Your task to perform on an android device: Open calendar and show me the second week of next month Image 0: 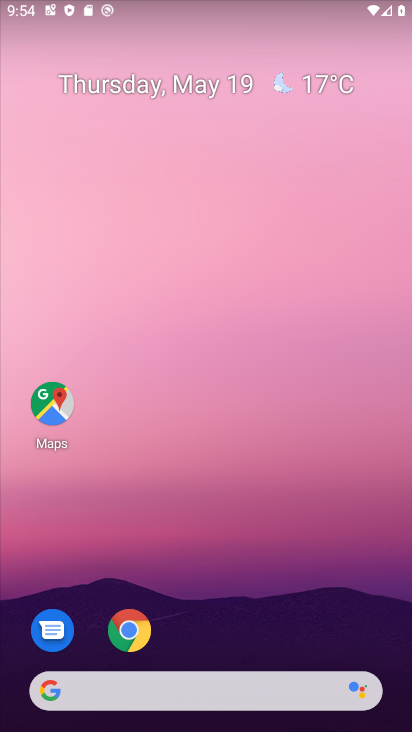
Step 0: drag from (249, 585) to (154, 38)
Your task to perform on an android device: Open calendar and show me the second week of next month Image 1: 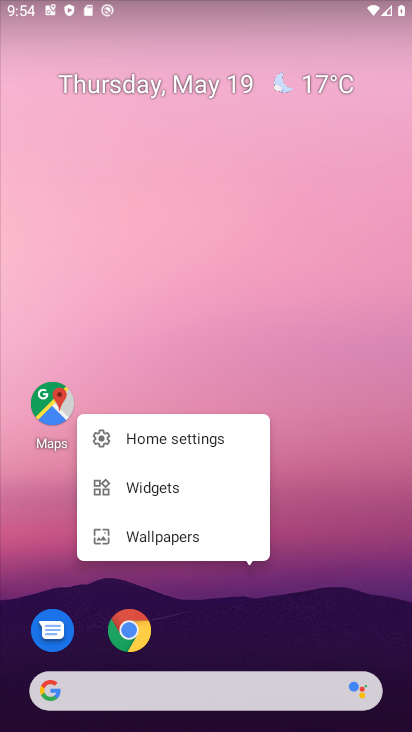
Step 1: click (336, 461)
Your task to perform on an android device: Open calendar and show me the second week of next month Image 2: 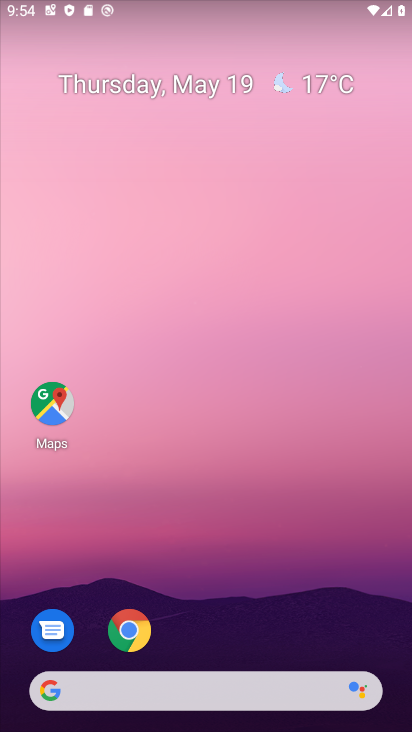
Step 2: drag from (169, 539) to (246, 55)
Your task to perform on an android device: Open calendar and show me the second week of next month Image 3: 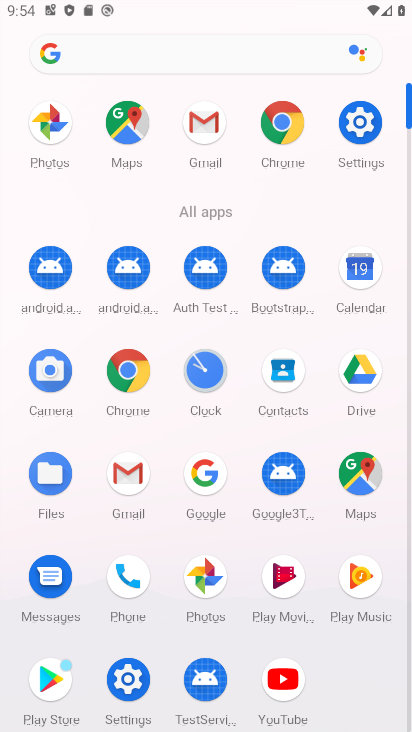
Step 3: click (365, 262)
Your task to perform on an android device: Open calendar and show me the second week of next month Image 4: 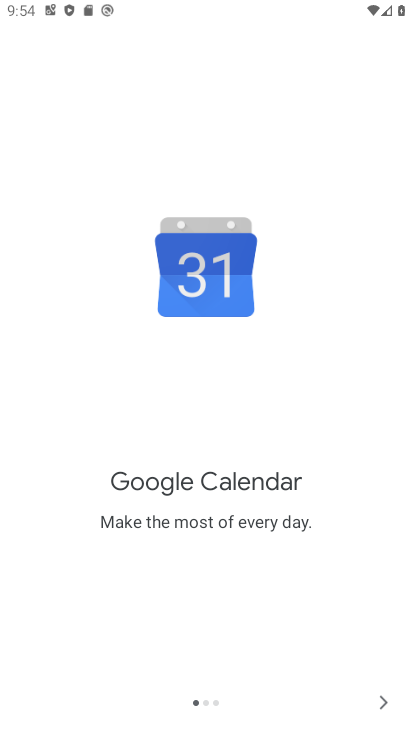
Step 4: click (378, 703)
Your task to perform on an android device: Open calendar and show me the second week of next month Image 5: 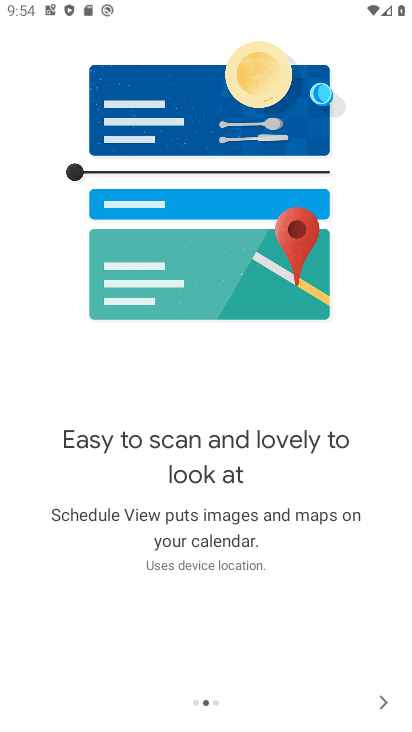
Step 5: click (378, 703)
Your task to perform on an android device: Open calendar and show me the second week of next month Image 6: 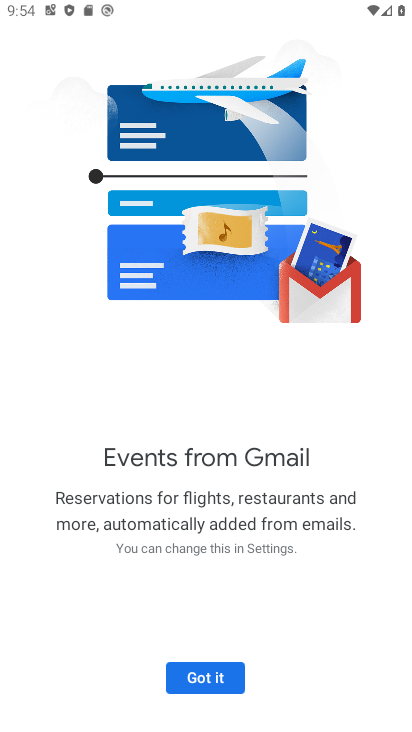
Step 6: click (211, 678)
Your task to perform on an android device: Open calendar and show me the second week of next month Image 7: 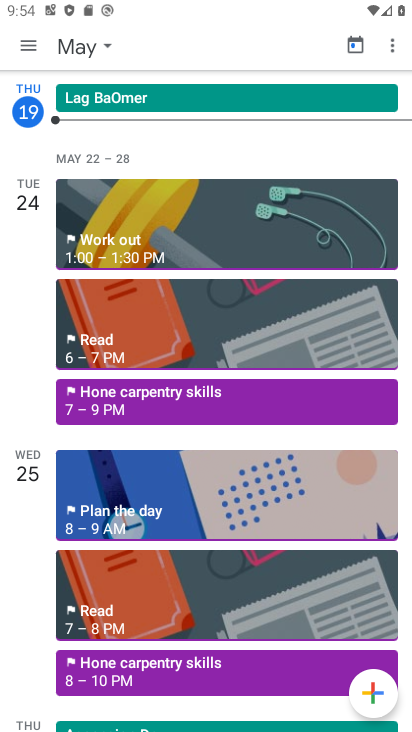
Step 7: click (27, 41)
Your task to perform on an android device: Open calendar and show me the second week of next month Image 8: 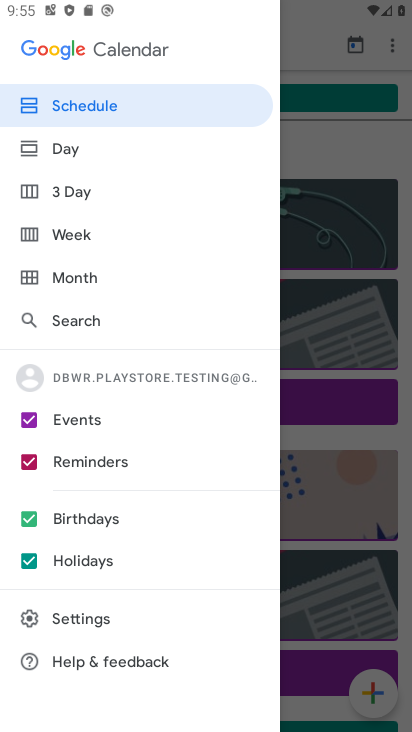
Step 8: click (74, 145)
Your task to perform on an android device: Open calendar and show me the second week of next month Image 9: 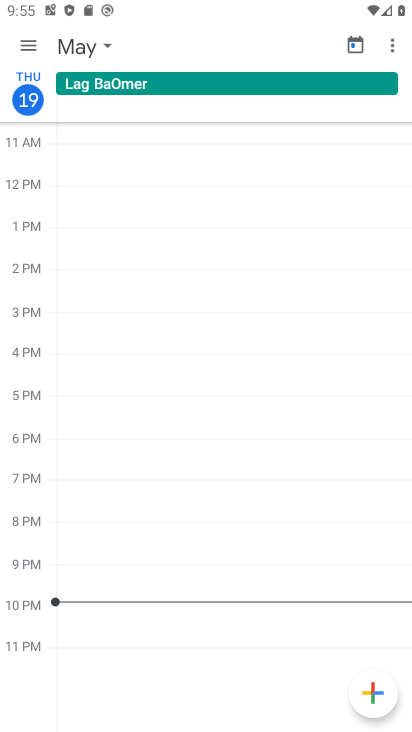
Step 9: click (24, 42)
Your task to perform on an android device: Open calendar and show me the second week of next month Image 10: 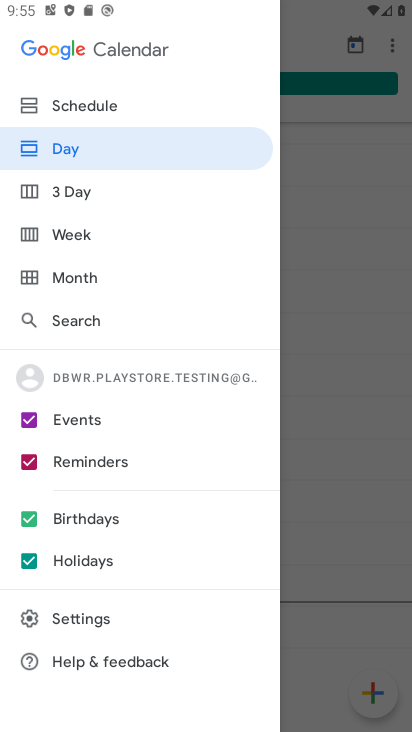
Step 10: click (75, 230)
Your task to perform on an android device: Open calendar and show me the second week of next month Image 11: 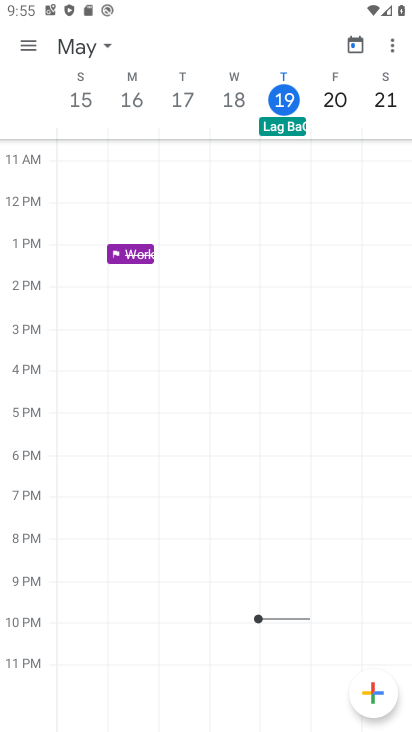
Step 11: click (106, 42)
Your task to perform on an android device: Open calendar and show me the second week of next month Image 12: 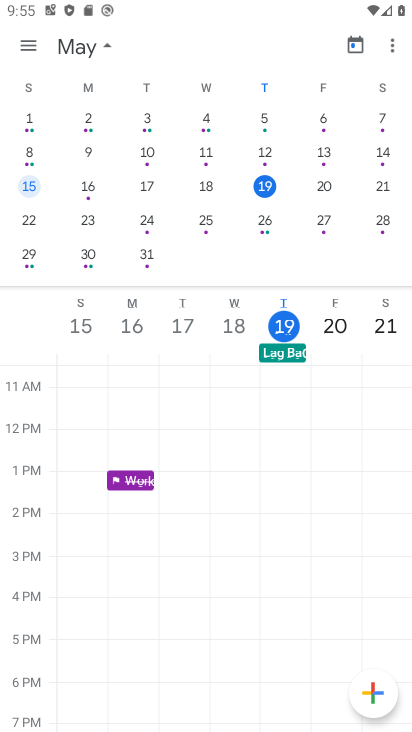
Step 12: drag from (358, 210) to (39, 299)
Your task to perform on an android device: Open calendar and show me the second week of next month Image 13: 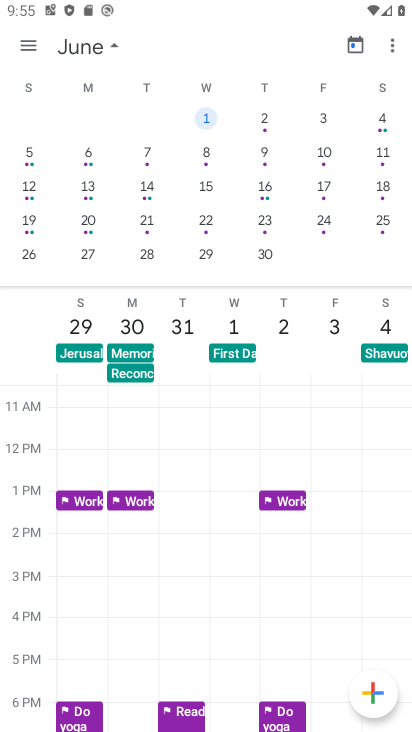
Step 13: click (214, 152)
Your task to perform on an android device: Open calendar and show me the second week of next month Image 14: 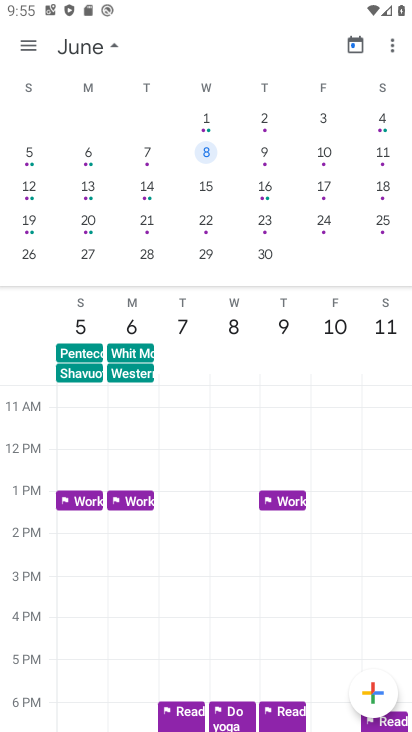
Step 14: click (198, 146)
Your task to perform on an android device: Open calendar and show me the second week of next month Image 15: 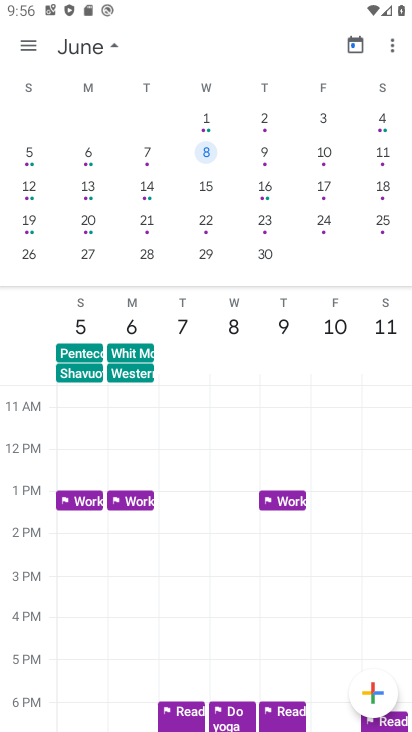
Step 15: task complete